Your task to perform on an android device: Go to wifi settings Image 0: 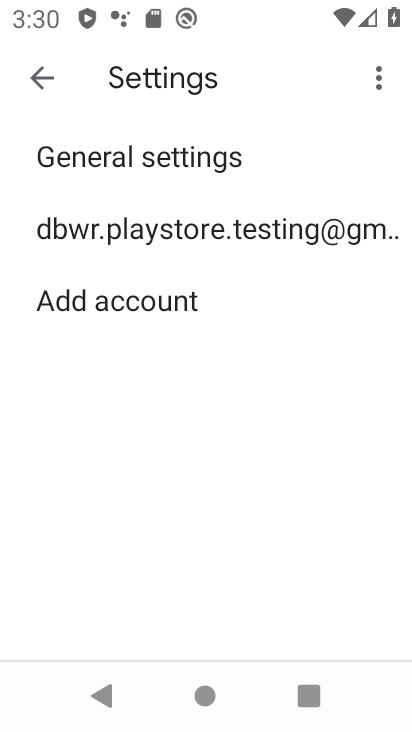
Step 0: press home button
Your task to perform on an android device: Go to wifi settings Image 1: 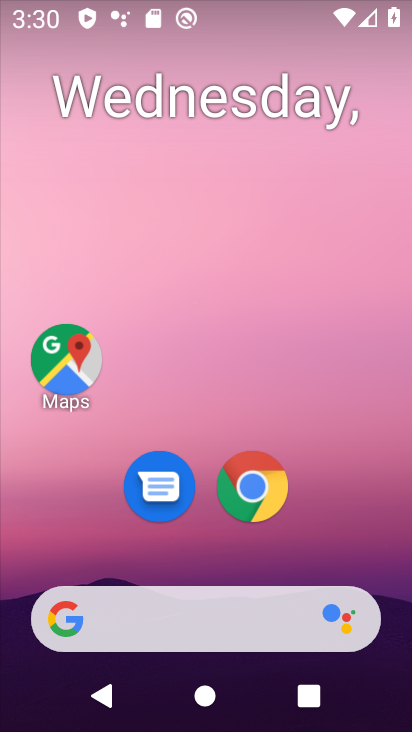
Step 1: drag from (225, 591) to (227, 138)
Your task to perform on an android device: Go to wifi settings Image 2: 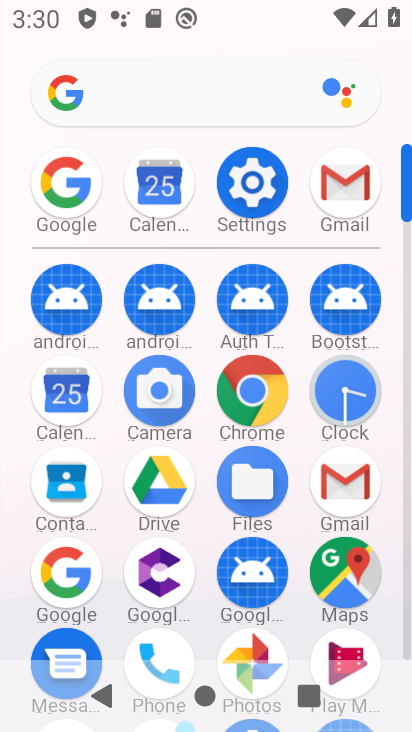
Step 2: click (253, 188)
Your task to perform on an android device: Go to wifi settings Image 3: 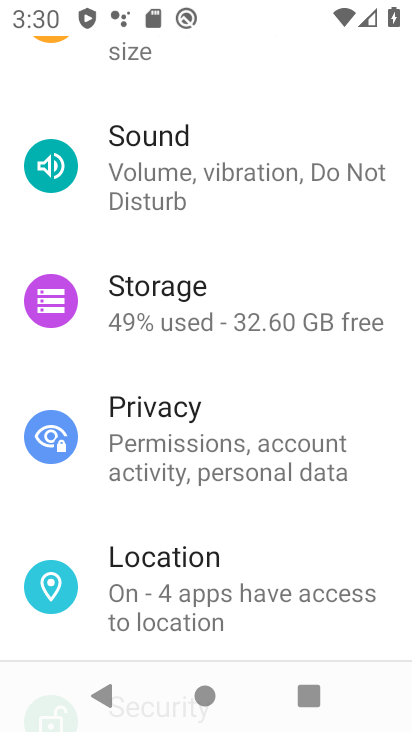
Step 3: drag from (218, 173) to (223, 599)
Your task to perform on an android device: Go to wifi settings Image 4: 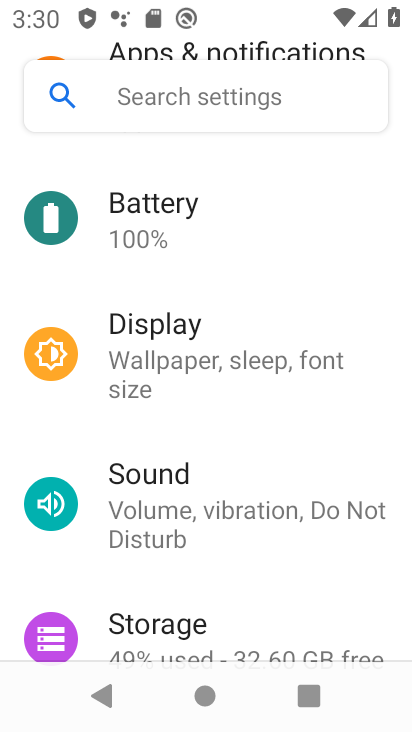
Step 4: drag from (228, 138) to (228, 574)
Your task to perform on an android device: Go to wifi settings Image 5: 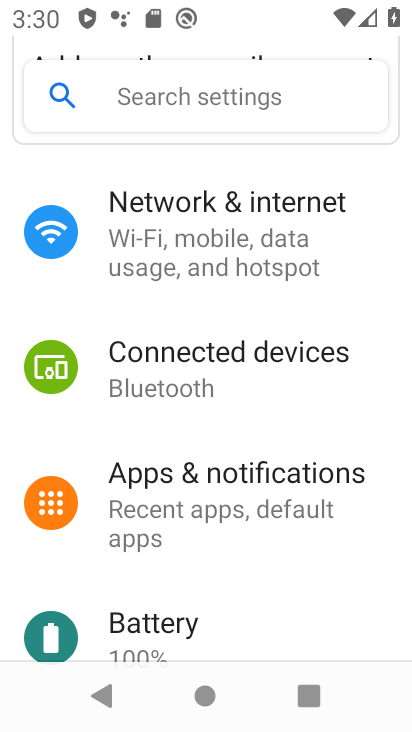
Step 5: click (205, 216)
Your task to perform on an android device: Go to wifi settings Image 6: 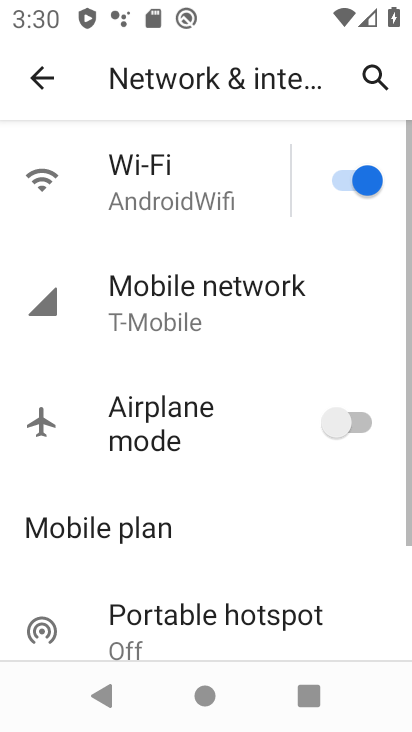
Step 6: click (158, 195)
Your task to perform on an android device: Go to wifi settings Image 7: 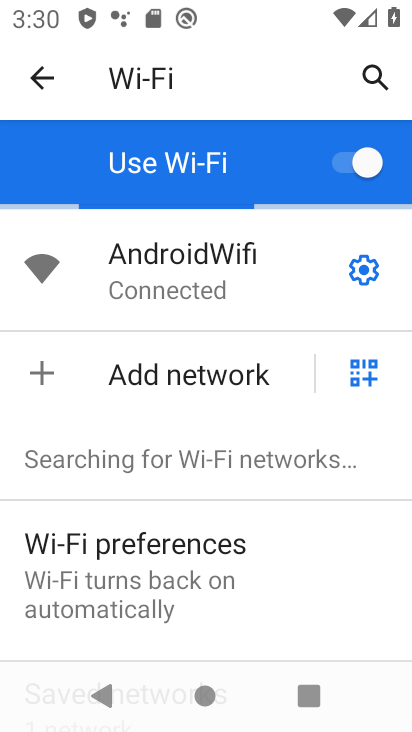
Step 7: task complete